Your task to perform on an android device: What's the weather going to be this weekend? Image 0: 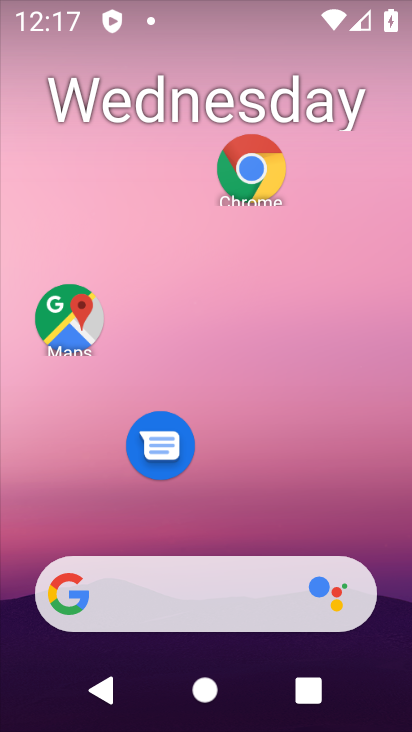
Step 0: press home button
Your task to perform on an android device: What's the weather going to be this weekend? Image 1: 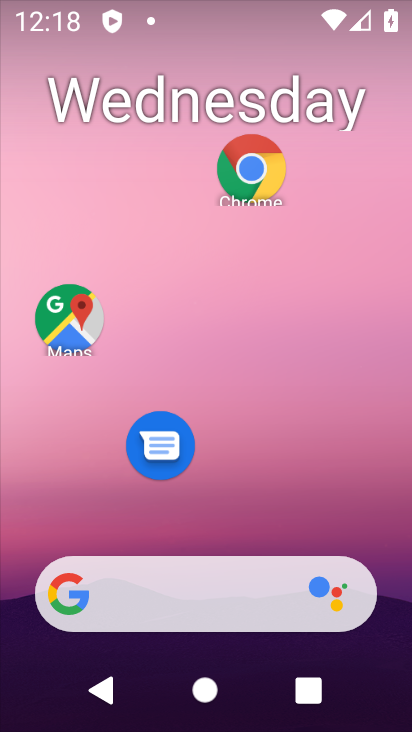
Step 1: drag from (211, 526) to (232, 145)
Your task to perform on an android device: What's the weather going to be this weekend? Image 2: 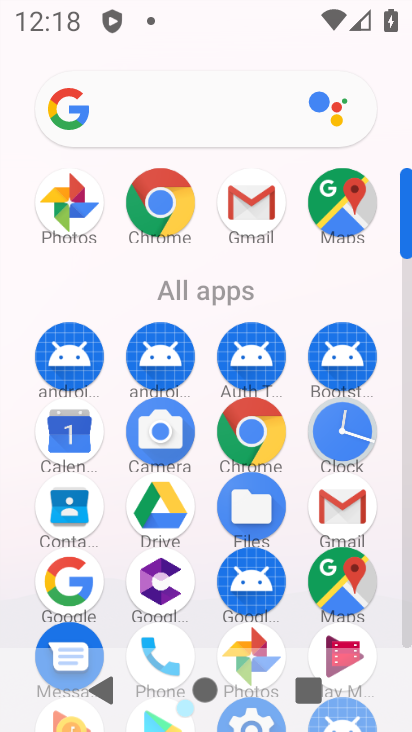
Step 2: click (78, 581)
Your task to perform on an android device: What's the weather going to be this weekend? Image 3: 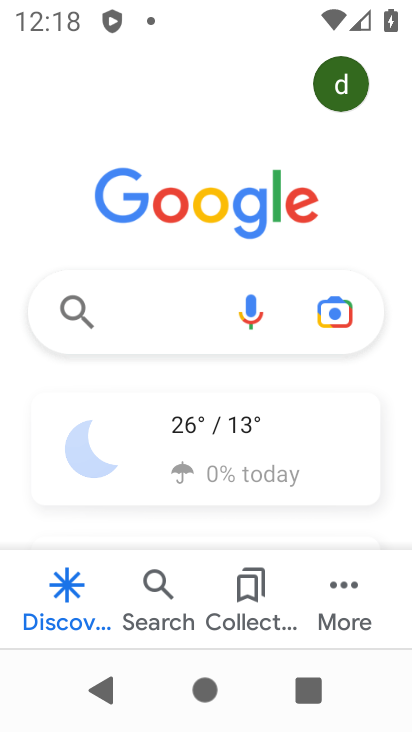
Step 3: click (136, 309)
Your task to perform on an android device: What's the weather going to be this weekend? Image 4: 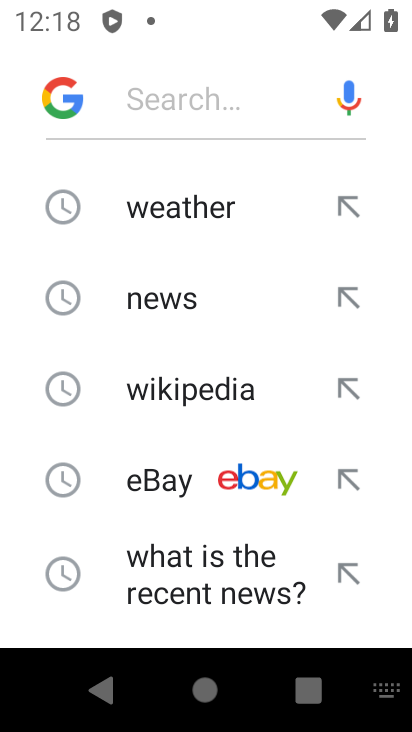
Step 4: click (186, 201)
Your task to perform on an android device: What's the weather going to be this weekend? Image 5: 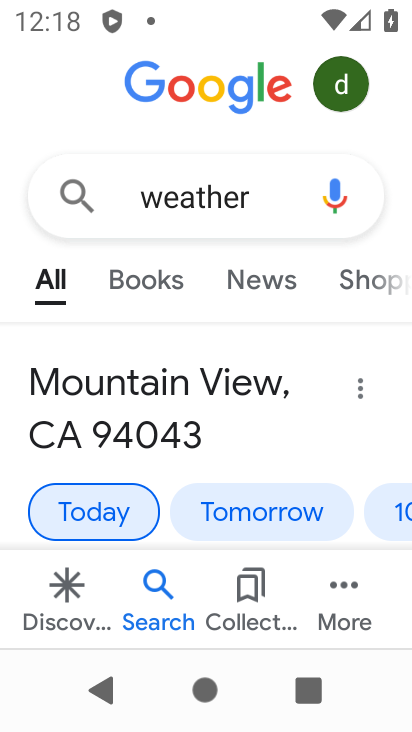
Step 5: drag from (203, 548) to (289, 237)
Your task to perform on an android device: What's the weather going to be this weekend? Image 6: 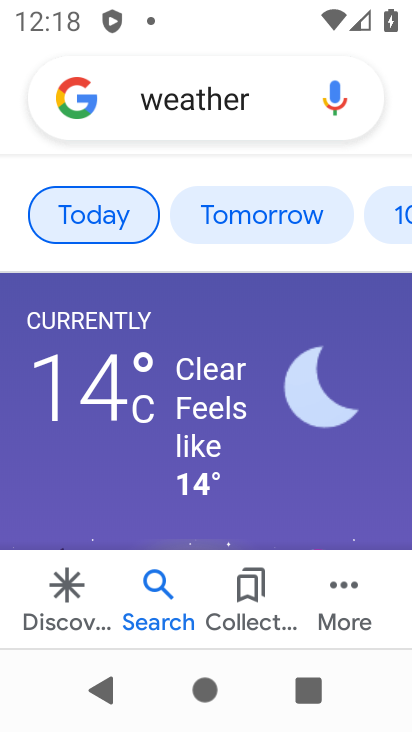
Step 6: drag from (234, 550) to (282, 279)
Your task to perform on an android device: What's the weather going to be this weekend? Image 7: 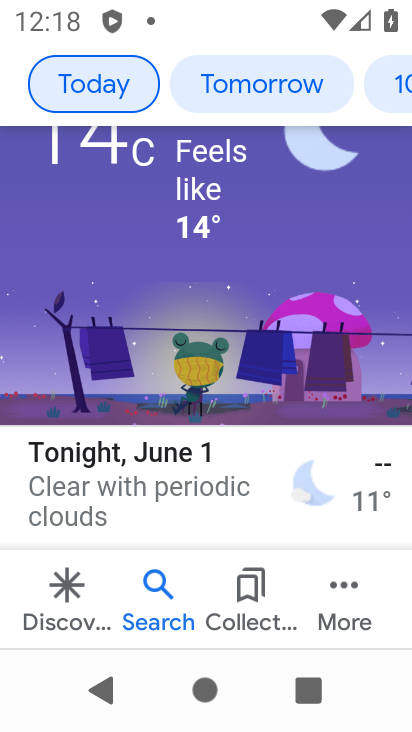
Step 7: click (391, 83)
Your task to perform on an android device: What's the weather going to be this weekend? Image 8: 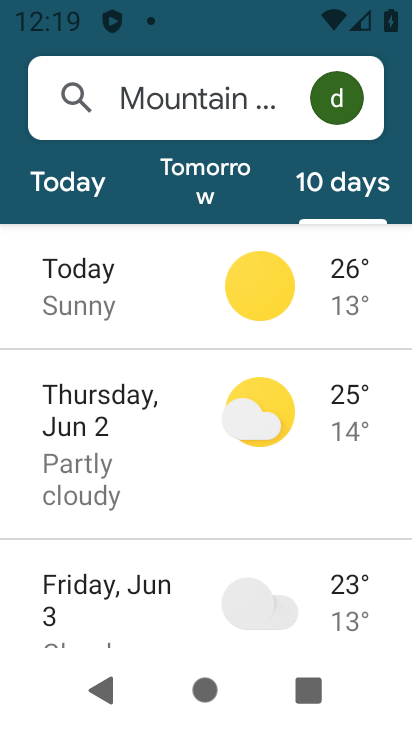
Step 8: task complete